Your task to perform on an android device: Open network settings Image 0: 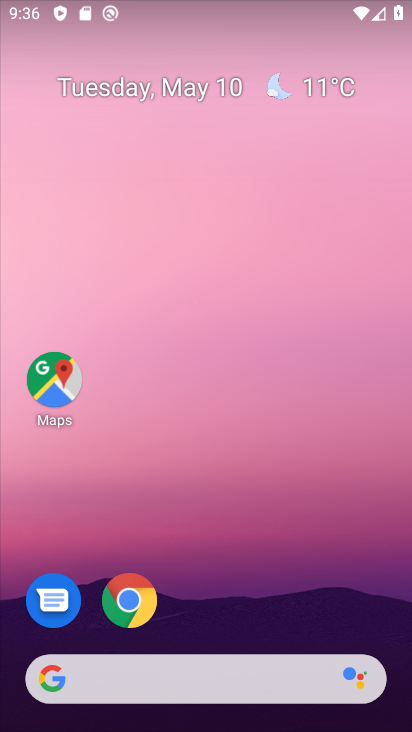
Step 0: drag from (241, 604) to (198, 153)
Your task to perform on an android device: Open network settings Image 1: 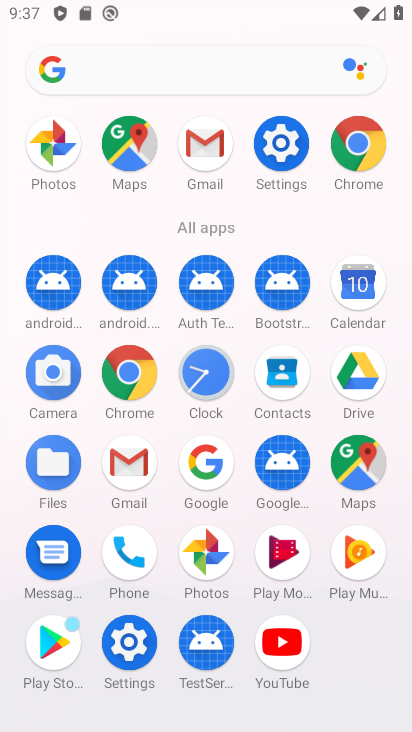
Step 1: click (286, 152)
Your task to perform on an android device: Open network settings Image 2: 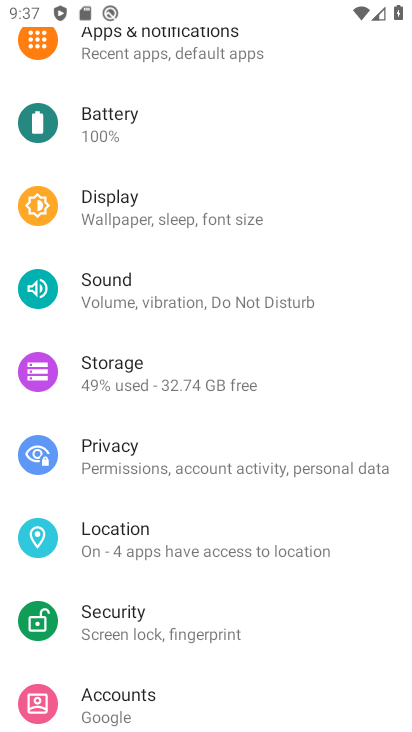
Step 2: drag from (285, 176) to (262, 529)
Your task to perform on an android device: Open network settings Image 3: 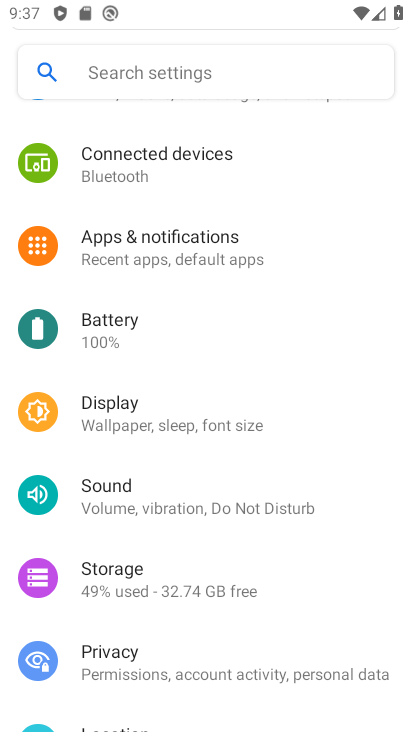
Step 3: drag from (216, 230) to (273, 605)
Your task to perform on an android device: Open network settings Image 4: 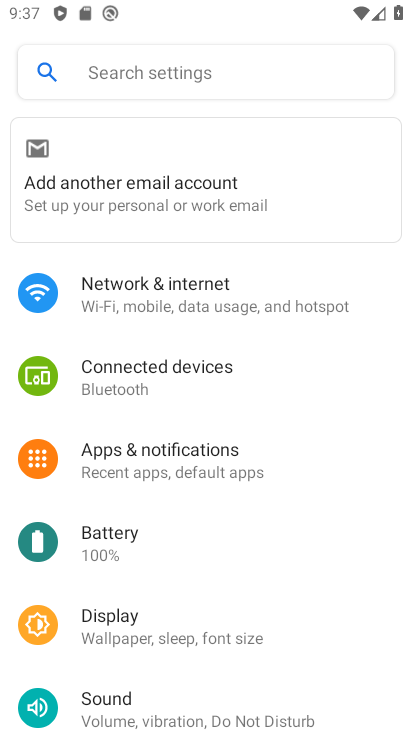
Step 4: click (134, 309)
Your task to perform on an android device: Open network settings Image 5: 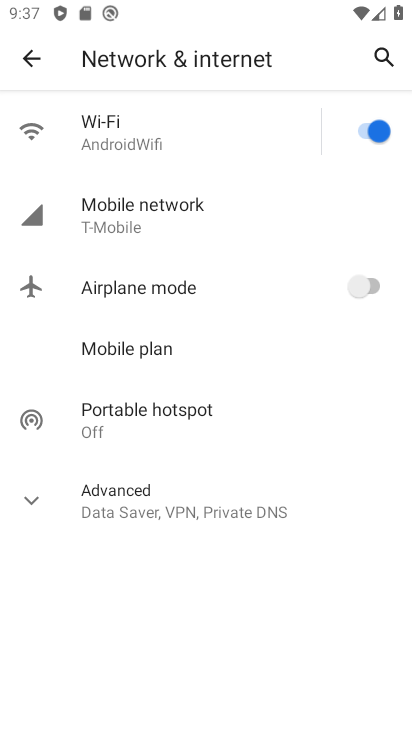
Step 5: click (118, 235)
Your task to perform on an android device: Open network settings Image 6: 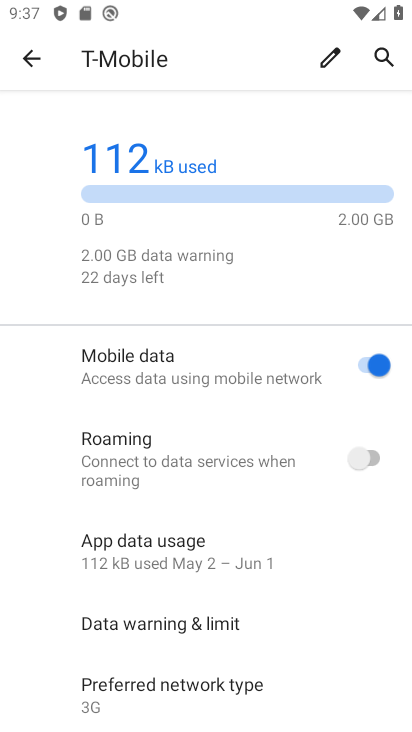
Step 6: task complete